Your task to perform on an android device: Go to Reddit.com Image 0: 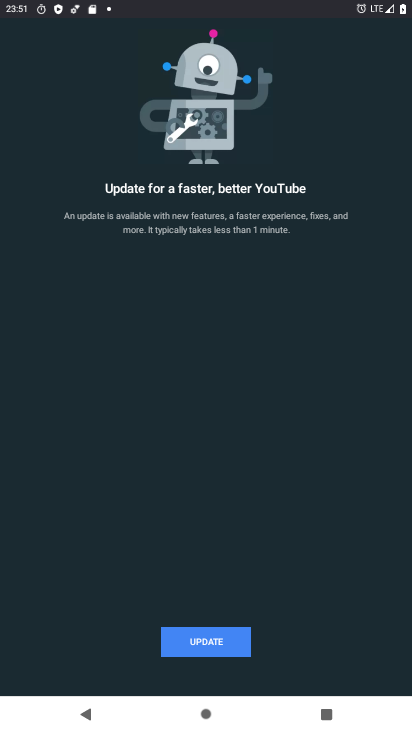
Step 0: press home button
Your task to perform on an android device: Go to Reddit.com Image 1: 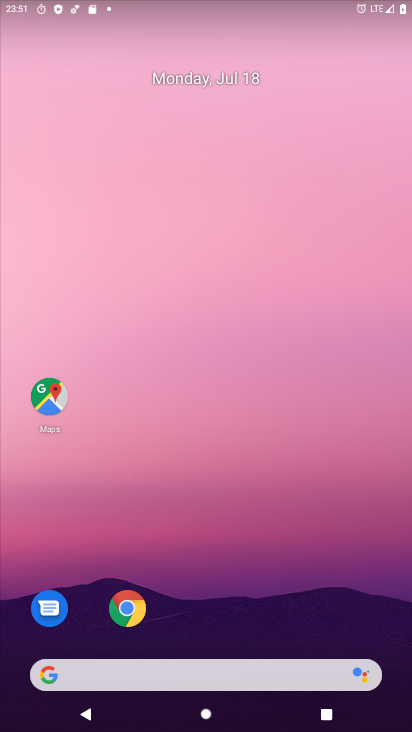
Step 1: click (128, 608)
Your task to perform on an android device: Go to Reddit.com Image 2: 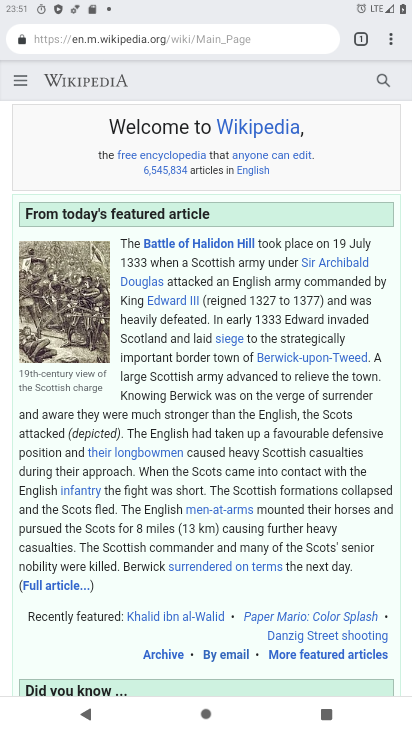
Step 2: click (260, 39)
Your task to perform on an android device: Go to Reddit.com Image 3: 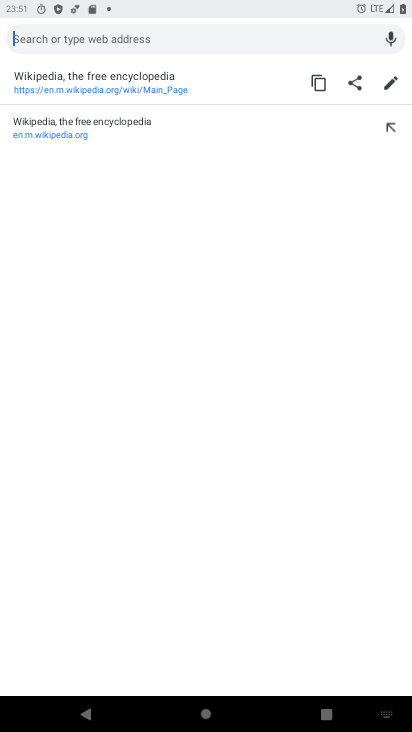
Step 3: type "Reddit.com"
Your task to perform on an android device: Go to Reddit.com Image 4: 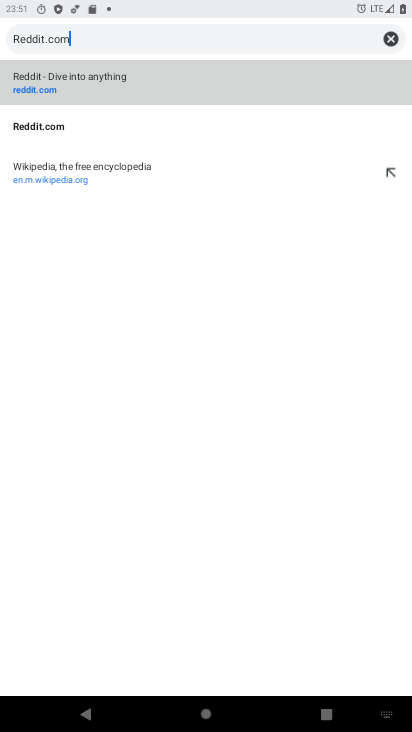
Step 4: type ""
Your task to perform on an android device: Go to Reddit.com Image 5: 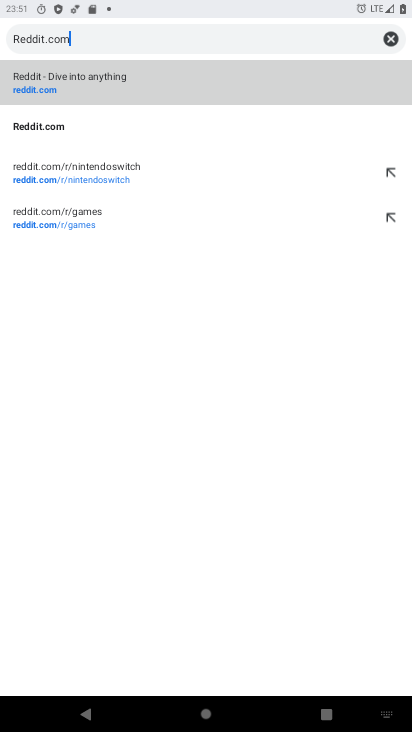
Step 5: click (49, 130)
Your task to perform on an android device: Go to Reddit.com Image 6: 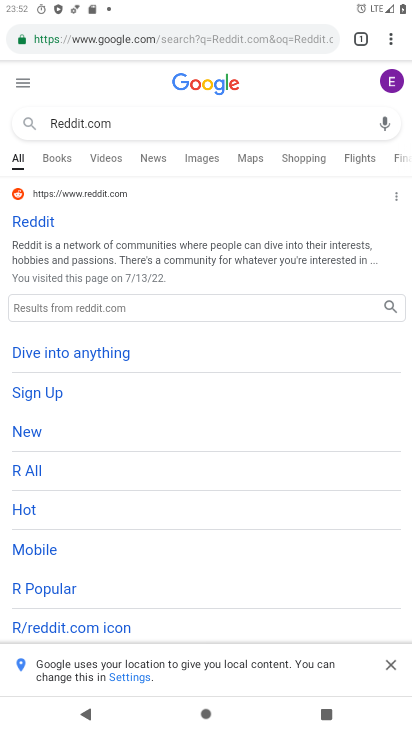
Step 6: click (36, 227)
Your task to perform on an android device: Go to Reddit.com Image 7: 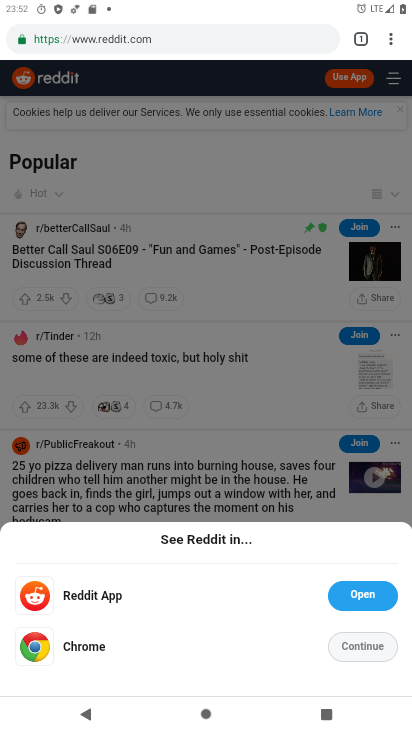
Step 7: click (374, 645)
Your task to perform on an android device: Go to Reddit.com Image 8: 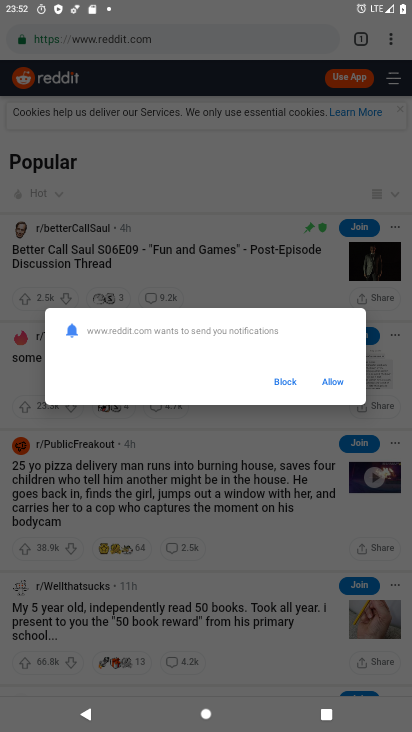
Step 8: click (333, 381)
Your task to perform on an android device: Go to Reddit.com Image 9: 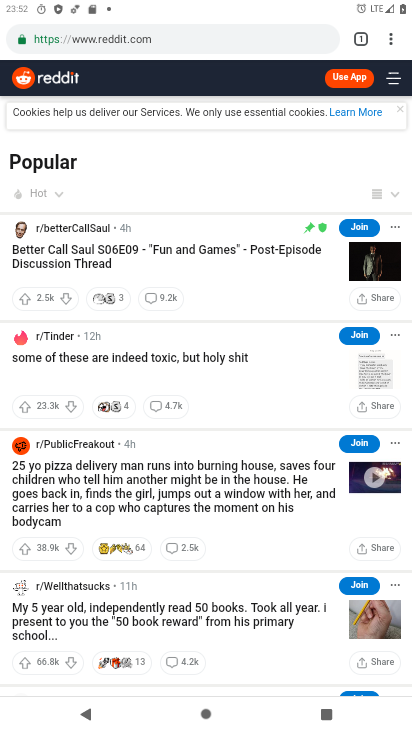
Step 9: task complete